Your task to perform on an android device: Open calendar and show me the second week of next month Image 0: 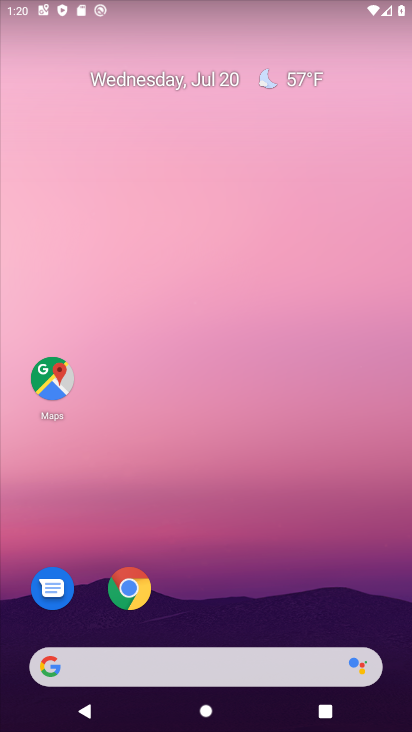
Step 0: press home button
Your task to perform on an android device: Open calendar and show me the second week of next month Image 1: 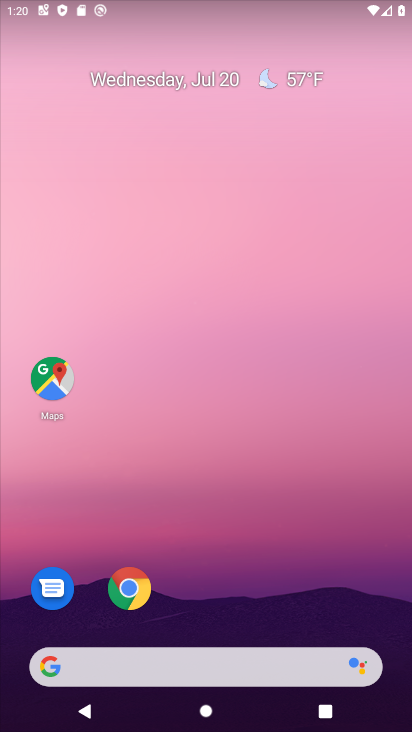
Step 1: drag from (135, 191) to (188, 68)
Your task to perform on an android device: Open calendar and show me the second week of next month Image 2: 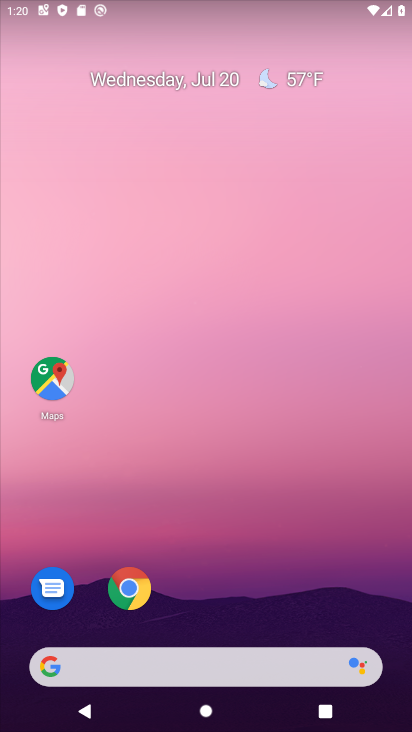
Step 2: drag from (211, 731) to (197, 96)
Your task to perform on an android device: Open calendar and show me the second week of next month Image 3: 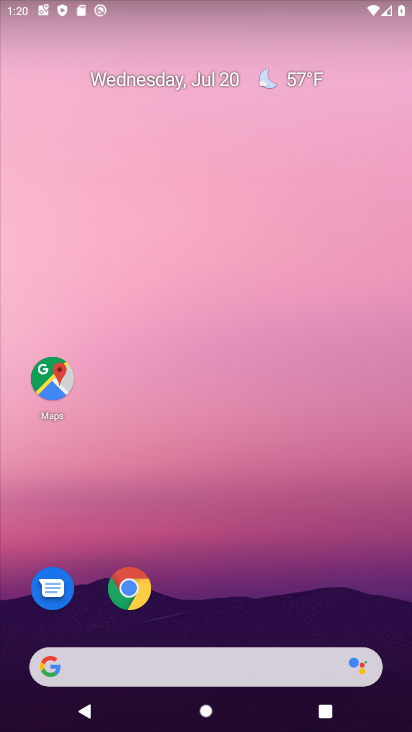
Step 3: drag from (17, 613) to (236, 33)
Your task to perform on an android device: Open calendar and show me the second week of next month Image 4: 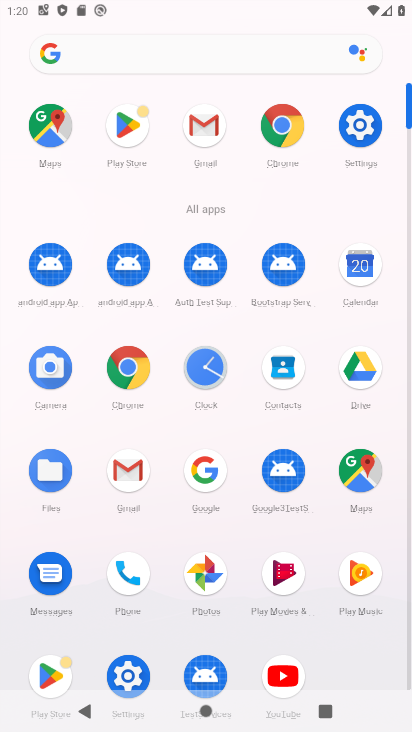
Step 4: click (348, 268)
Your task to perform on an android device: Open calendar and show me the second week of next month Image 5: 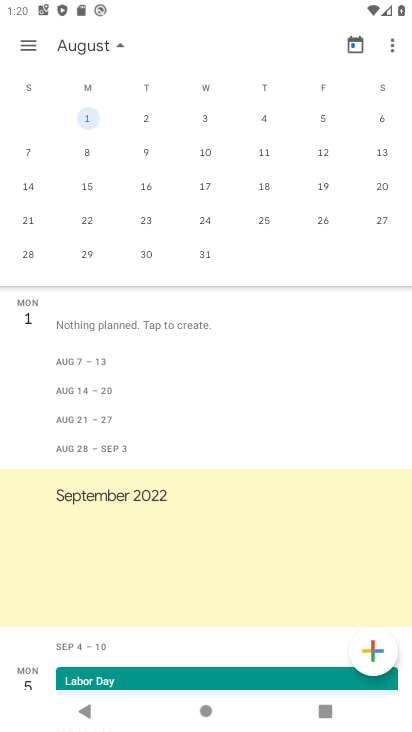
Step 5: drag from (11, 235) to (401, 278)
Your task to perform on an android device: Open calendar and show me the second week of next month Image 6: 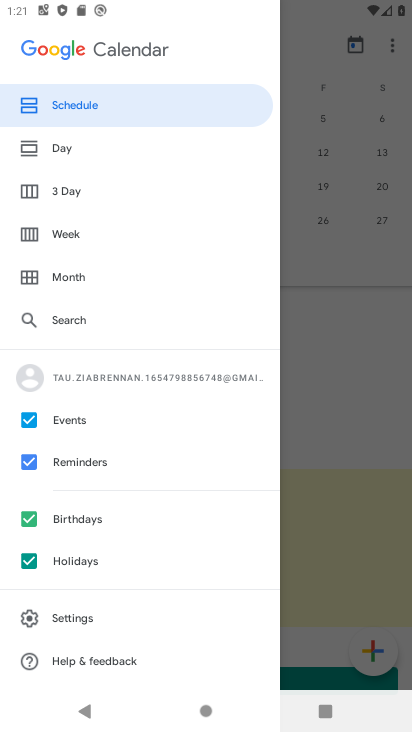
Step 6: press home button
Your task to perform on an android device: Open calendar and show me the second week of next month Image 7: 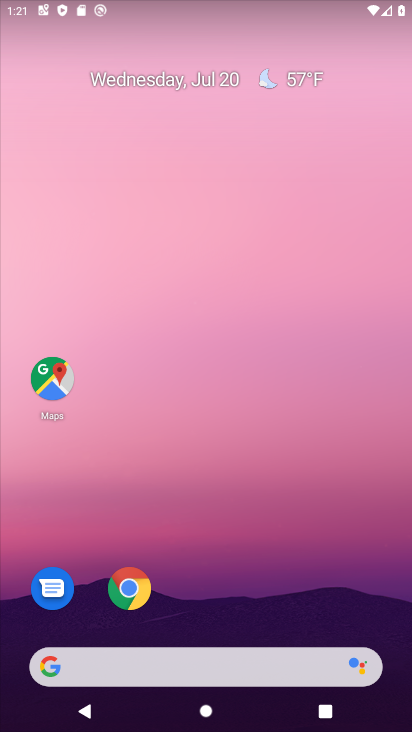
Step 7: drag from (29, 478) to (222, 30)
Your task to perform on an android device: Open calendar and show me the second week of next month Image 8: 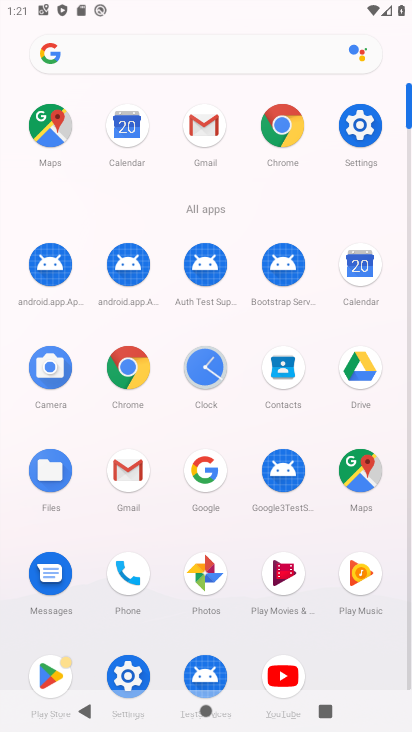
Step 8: click (336, 263)
Your task to perform on an android device: Open calendar and show me the second week of next month Image 9: 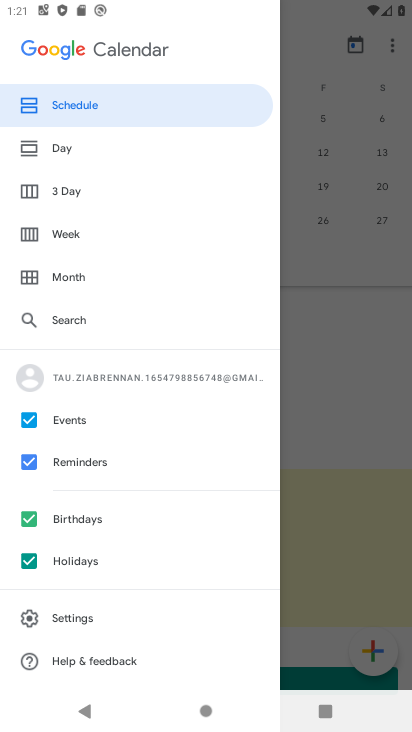
Step 9: click (325, 321)
Your task to perform on an android device: Open calendar and show me the second week of next month Image 10: 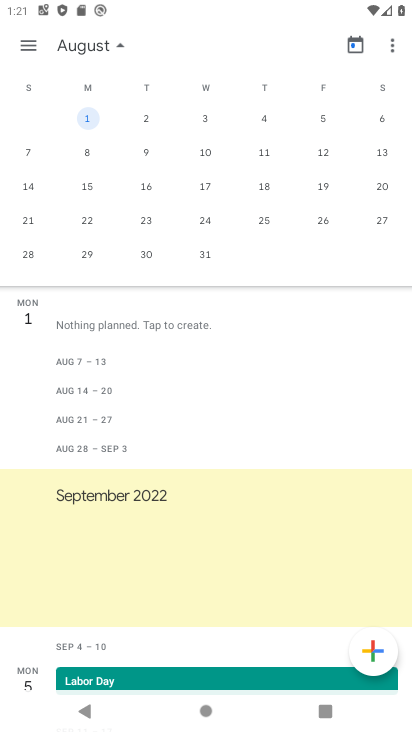
Step 10: press back button
Your task to perform on an android device: Open calendar and show me the second week of next month Image 11: 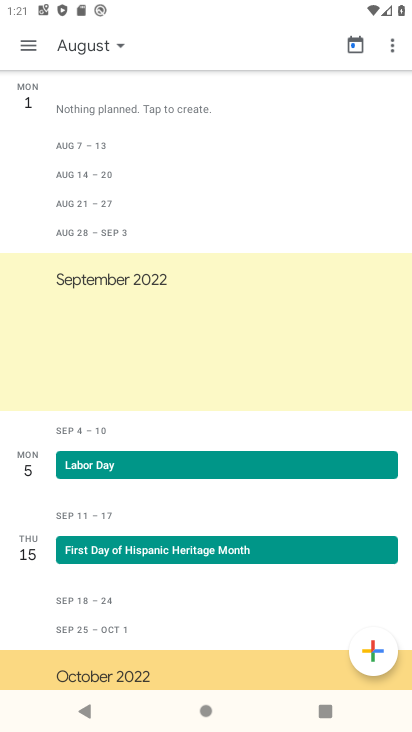
Step 11: click (70, 41)
Your task to perform on an android device: Open calendar and show me the second week of next month Image 12: 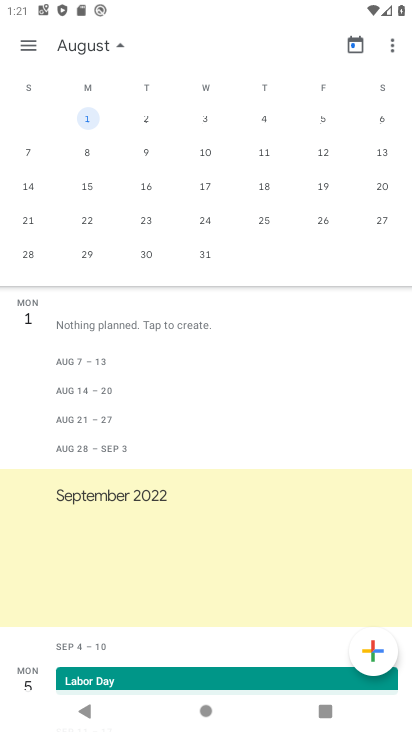
Step 12: drag from (0, 191) to (399, 230)
Your task to perform on an android device: Open calendar and show me the second week of next month Image 13: 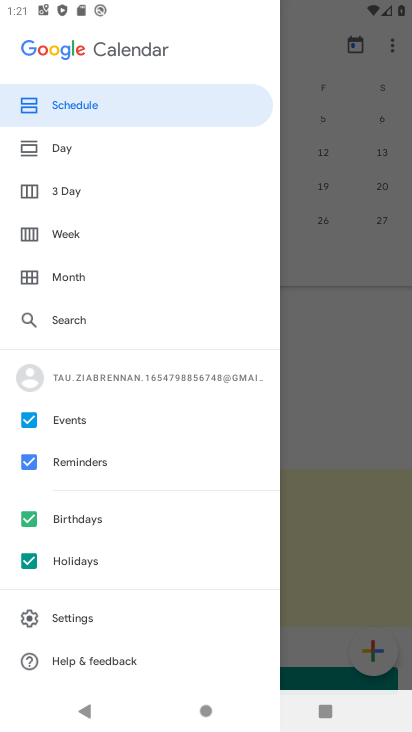
Step 13: press back button
Your task to perform on an android device: Open calendar and show me the second week of next month Image 14: 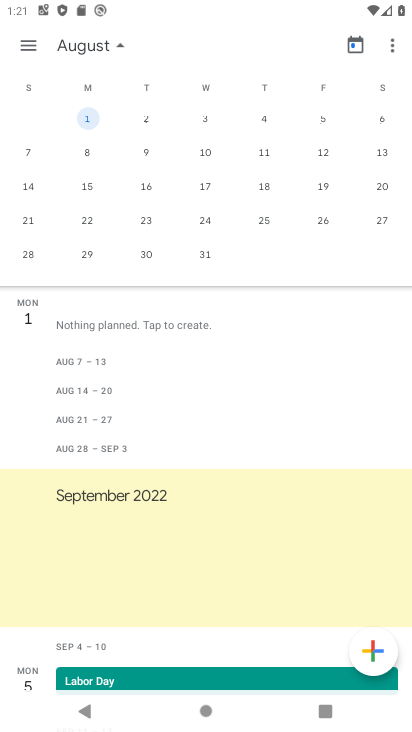
Step 14: drag from (63, 191) to (396, 284)
Your task to perform on an android device: Open calendar and show me the second week of next month Image 15: 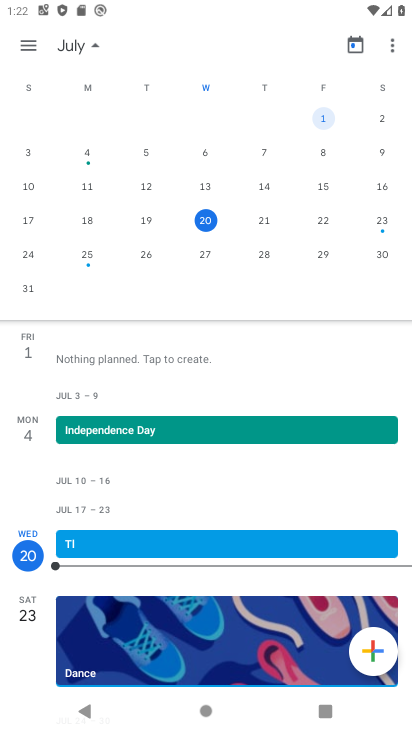
Step 15: click (261, 218)
Your task to perform on an android device: Open calendar and show me the second week of next month Image 16: 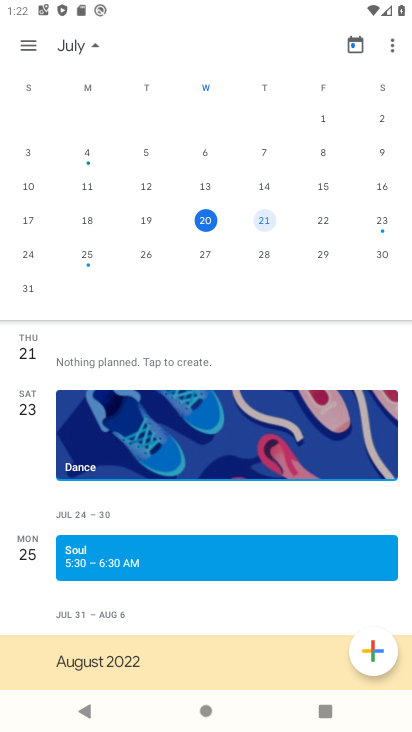
Step 16: task complete